Your task to perform on an android device: toggle pop-ups in chrome Image 0: 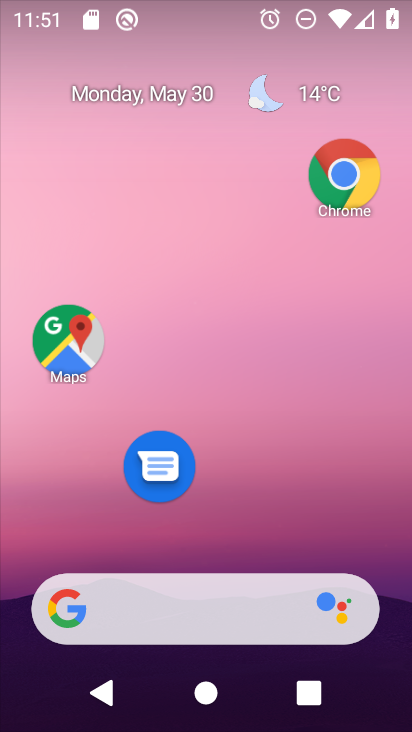
Step 0: click (344, 180)
Your task to perform on an android device: toggle pop-ups in chrome Image 1: 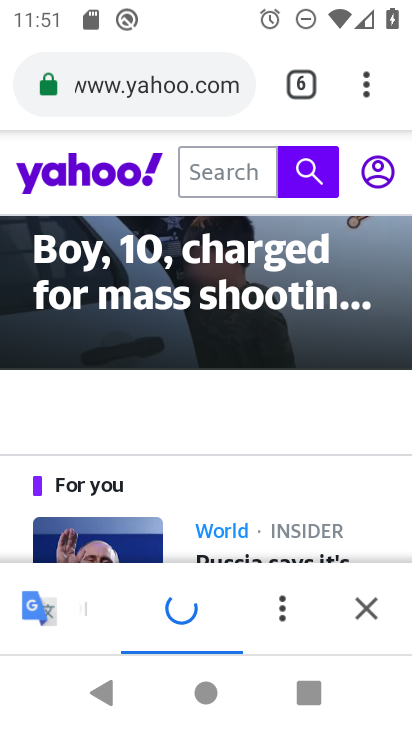
Step 1: click (353, 78)
Your task to perform on an android device: toggle pop-ups in chrome Image 2: 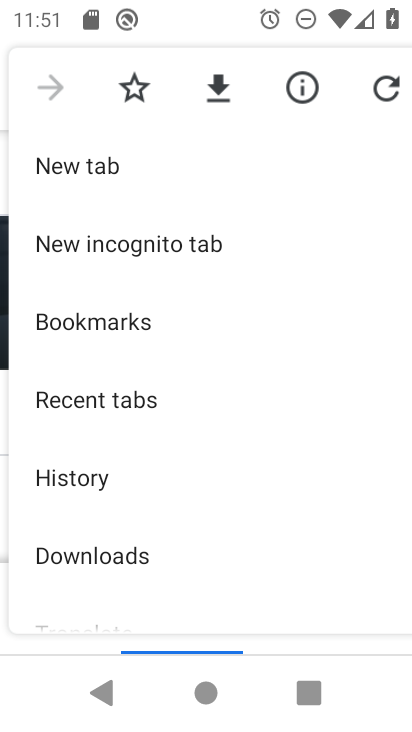
Step 2: drag from (211, 498) to (283, 213)
Your task to perform on an android device: toggle pop-ups in chrome Image 3: 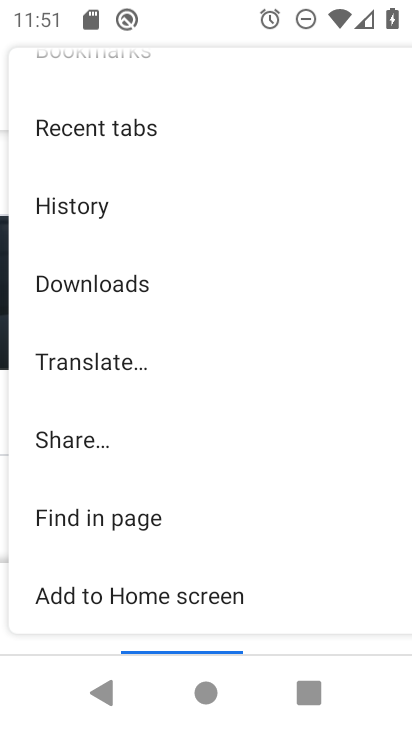
Step 3: drag from (117, 509) to (175, 232)
Your task to perform on an android device: toggle pop-ups in chrome Image 4: 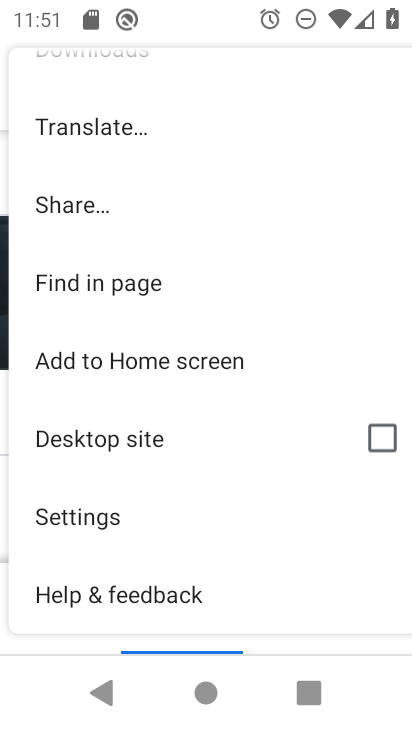
Step 4: click (99, 509)
Your task to perform on an android device: toggle pop-ups in chrome Image 5: 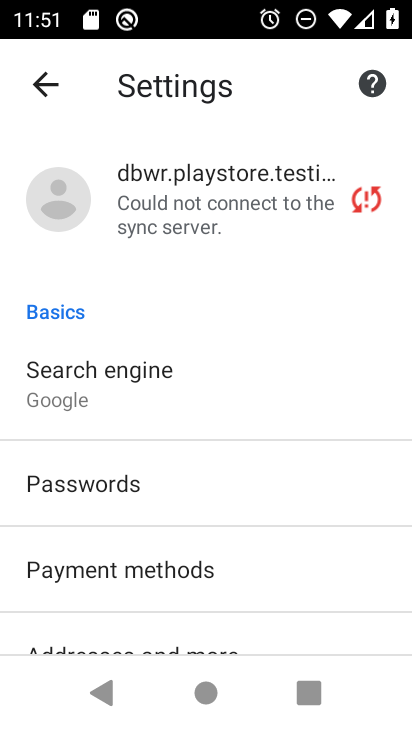
Step 5: drag from (140, 498) to (160, 242)
Your task to perform on an android device: toggle pop-ups in chrome Image 6: 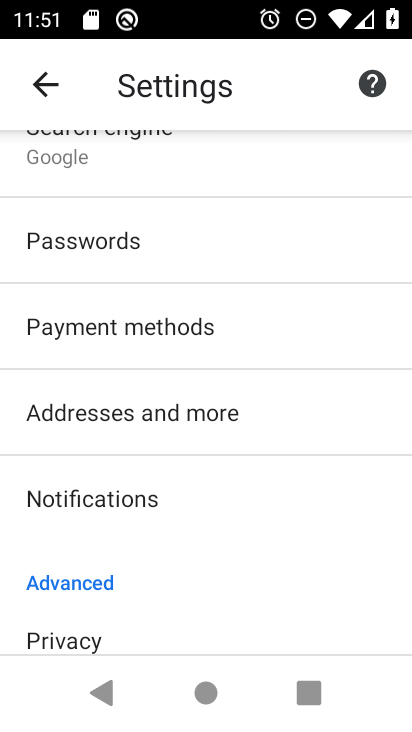
Step 6: drag from (193, 513) to (191, 294)
Your task to perform on an android device: toggle pop-ups in chrome Image 7: 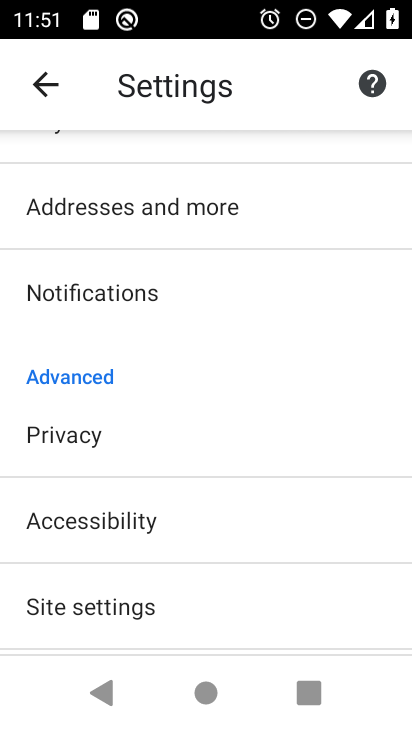
Step 7: click (146, 602)
Your task to perform on an android device: toggle pop-ups in chrome Image 8: 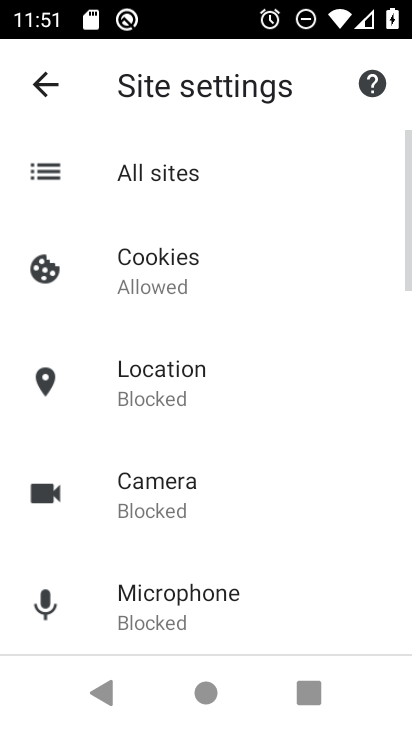
Step 8: drag from (229, 514) to (249, 225)
Your task to perform on an android device: toggle pop-ups in chrome Image 9: 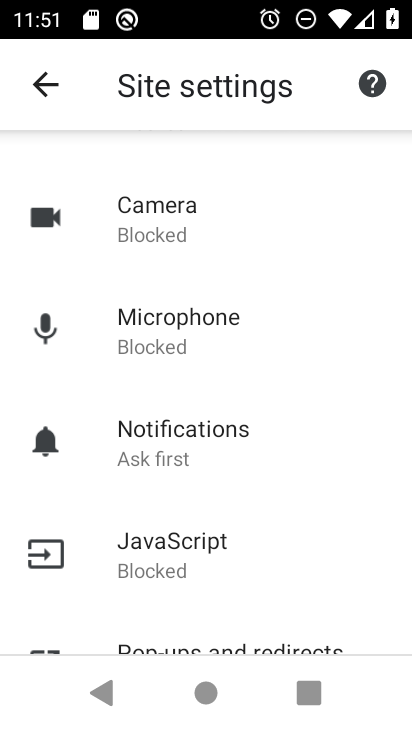
Step 9: drag from (243, 531) to (258, 205)
Your task to perform on an android device: toggle pop-ups in chrome Image 10: 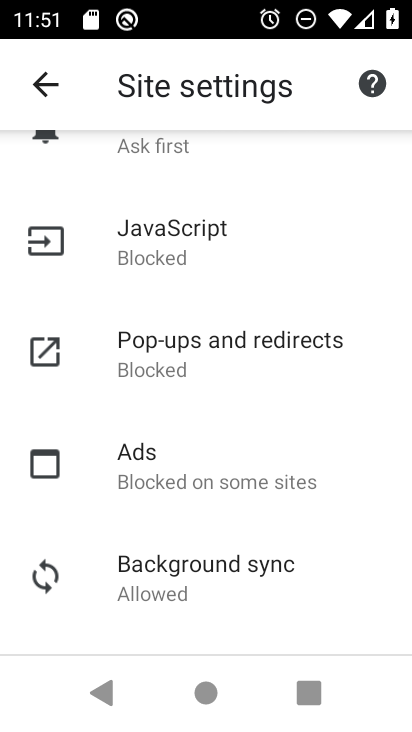
Step 10: click (232, 373)
Your task to perform on an android device: toggle pop-ups in chrome Image 11: 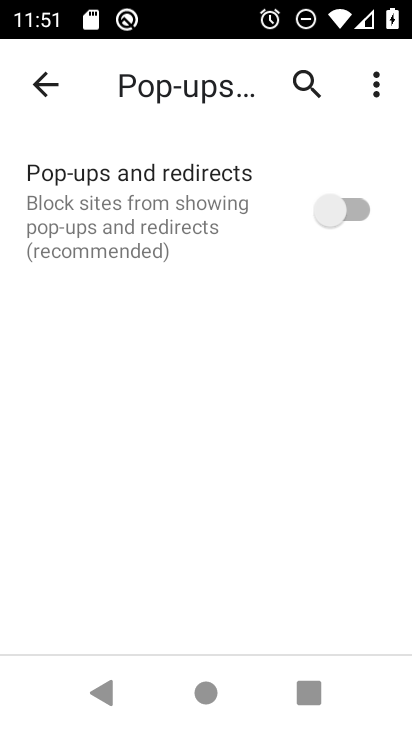
Step 11: click (355, 215)
Your task to perform on an android device: toggle pop-ups in chrome Image 12: 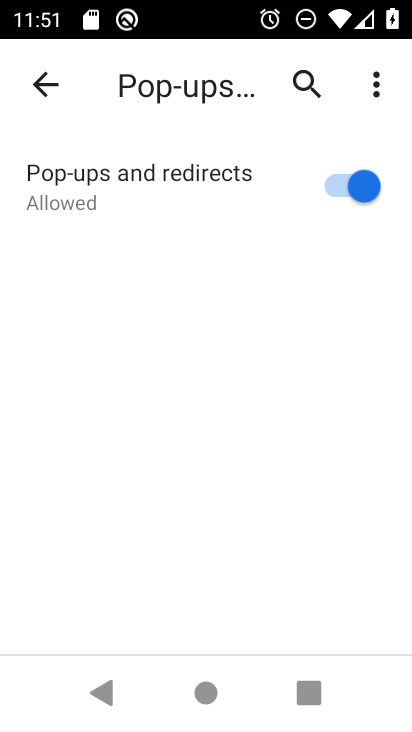
Step 12: task complete